Your task to perform on an android device: change the clock display to show seconds Image 0: 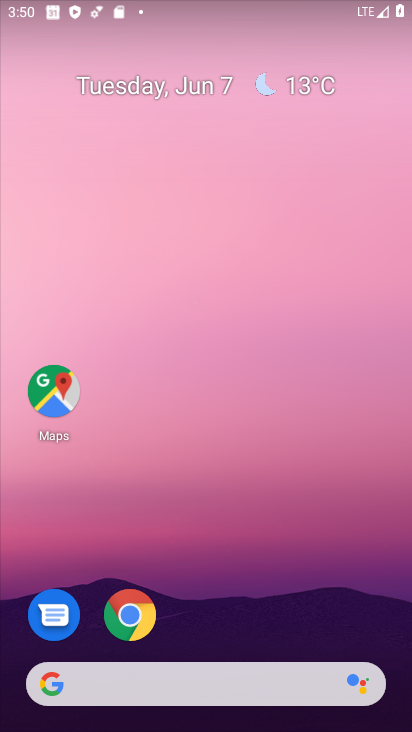
Step 0: drag from (235, 727) to (234, 218)
Your task to perform on an android device: change the clock display to show seconds Image 1: 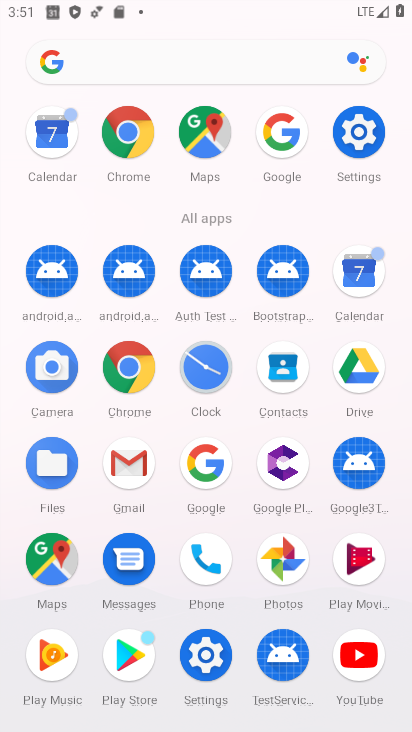
Step 1: click (194, 362)
Your task to perform on an android device: change the clock display to show seconds Image 2: 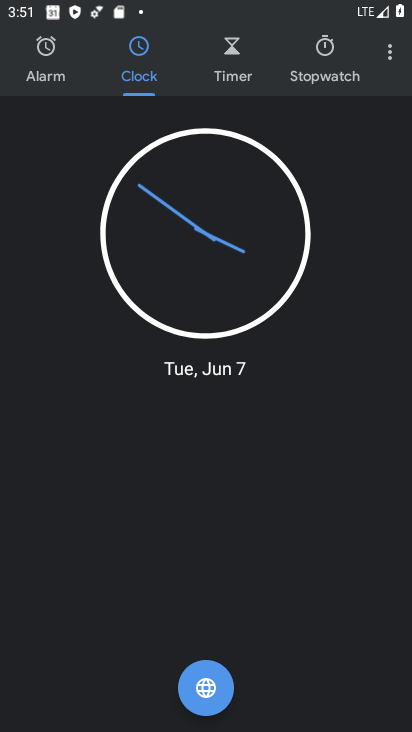
Step 2: click (393, 60)
Your task to perform on an android device: change the clock display to show seconds Image 3: 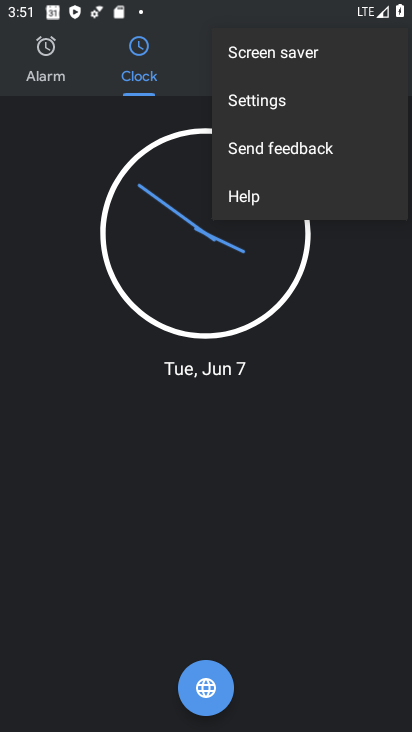
Step 3: click (236, 99)
Your task to perform on an android device: change the clock display to show seconds Image 4: 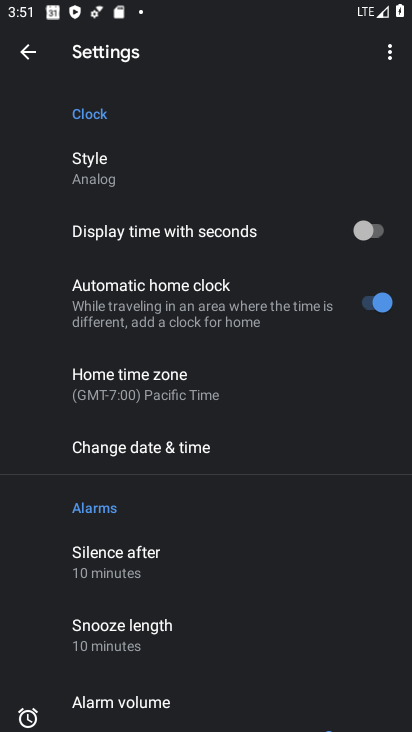
Step 4: click (380, 233)
Your task to perform on an android device: change the clock display to show seconds Image 5: 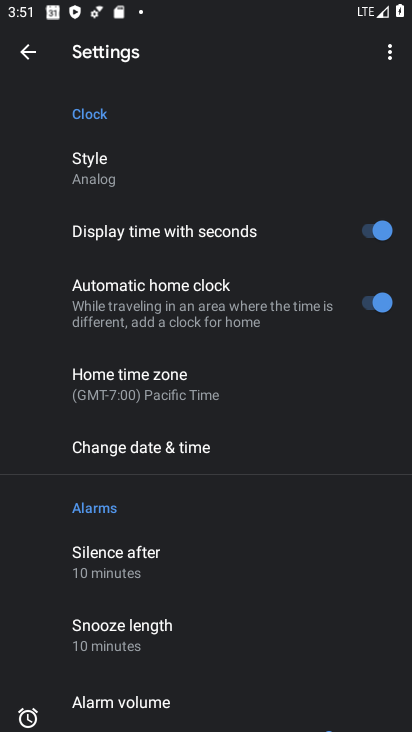
Step 5: task complete